Your task to perform on an android device: Turn on the flashlight Image 0: 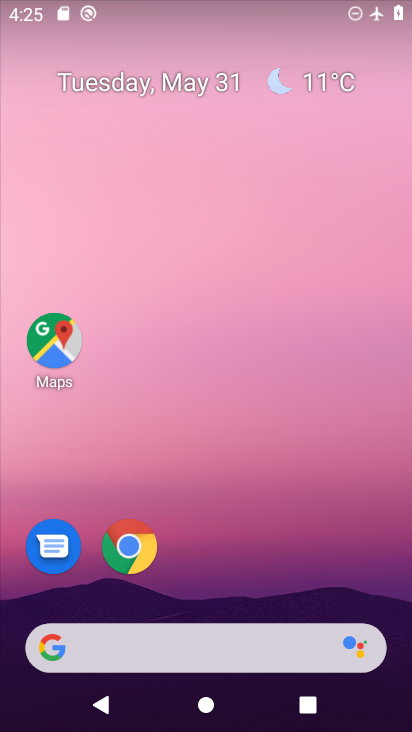
Step 0: drag from (201, 60) to (231, 478)
Your task to perform on an android device: Turn on the flashlight Image 1: 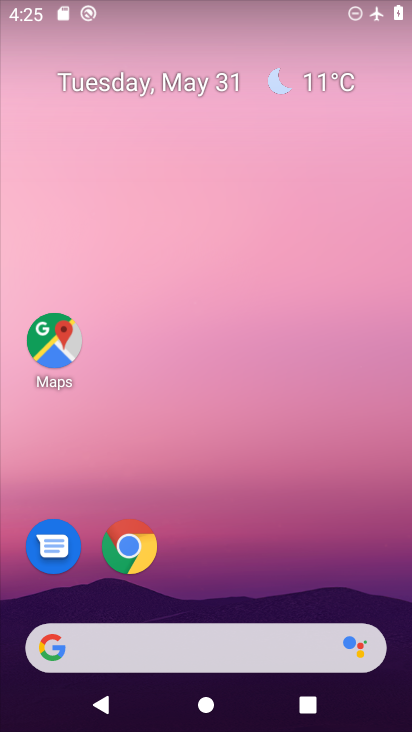
Step 1: task complete